Your task to perform on an android device: open a bookmark in the chrome app Image 0: 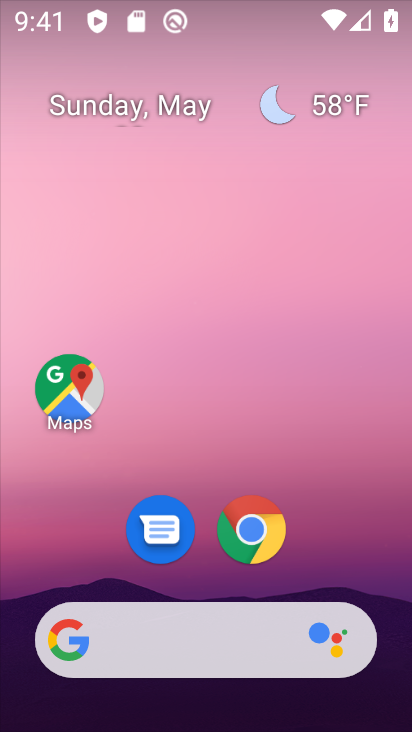
Step 0: click (258, 517)
Your task to perform on an android device: open a bookmark in the chrome app Image 1: 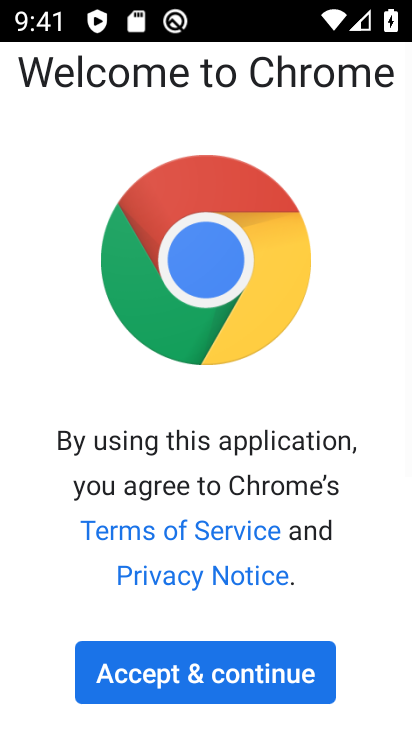
Step 1: click (250, 677)
Your task to perform on an android device: open a bookmark in the chrome app Image 2: 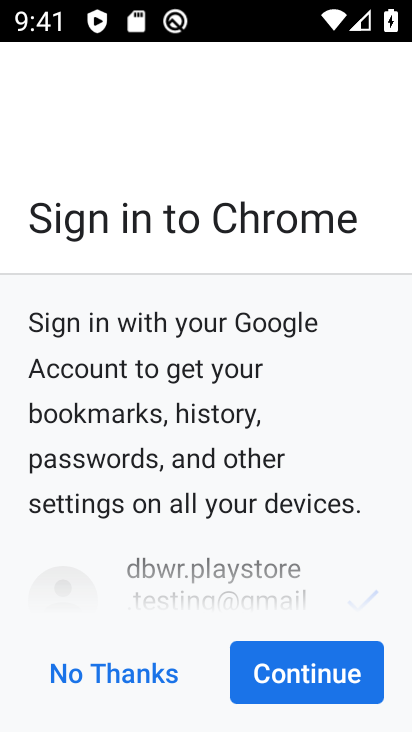
Step 2: click (270, 668)
Your task to perform on an android device: open a bookmark in the chrome app Image 3: 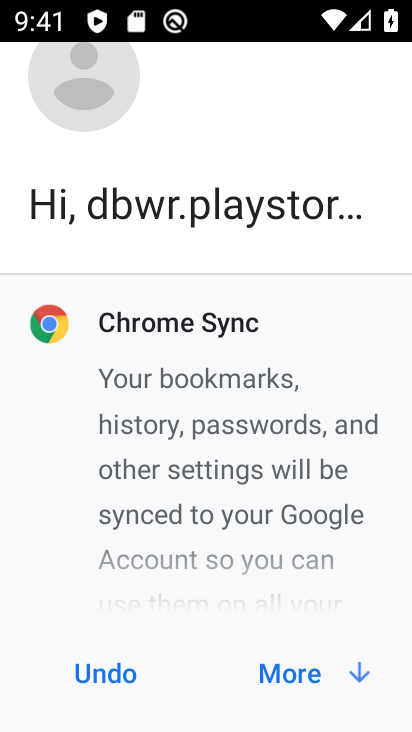
Step 3: click (305, 677)
Your task to perform on an android device: open a bookmark in the chrome app Image 4: 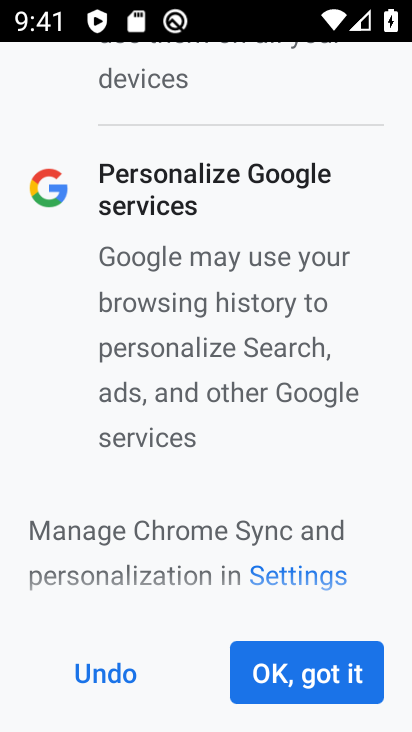
Step 4: click (305, 677)
Your task to perform on an android device: open a bookmark in the chrome app Image 5: 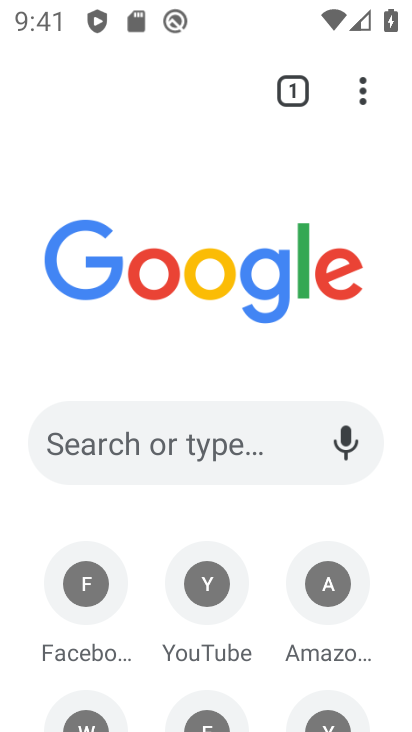
Step 5: click (362, 89)
Your task to perform on an android device: open a bookmark in the chrome app Image 6: 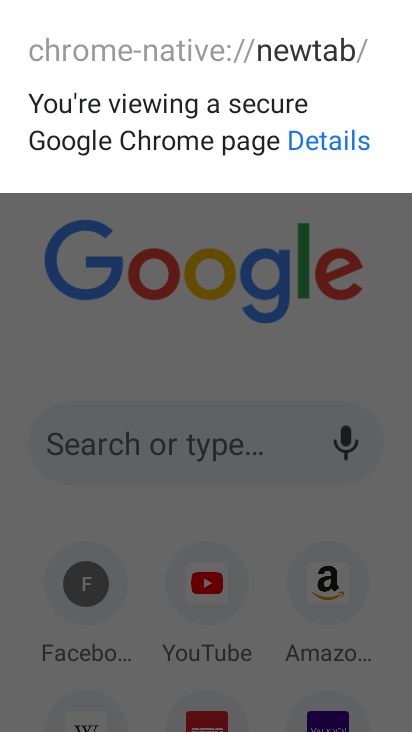
Step 6: click (336, 378)
Your task to perform on an android device: open a bookmark in the chrome app Image 7: 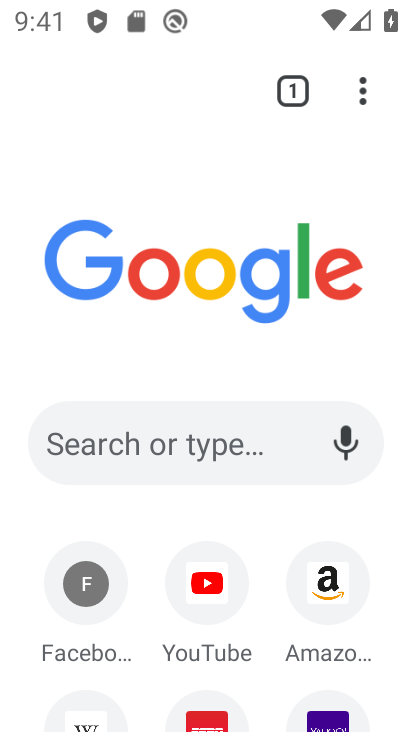
Step 7: click (371, 106)
Your task to perform on an android device: open a bookmark in the chrome app Image 8: 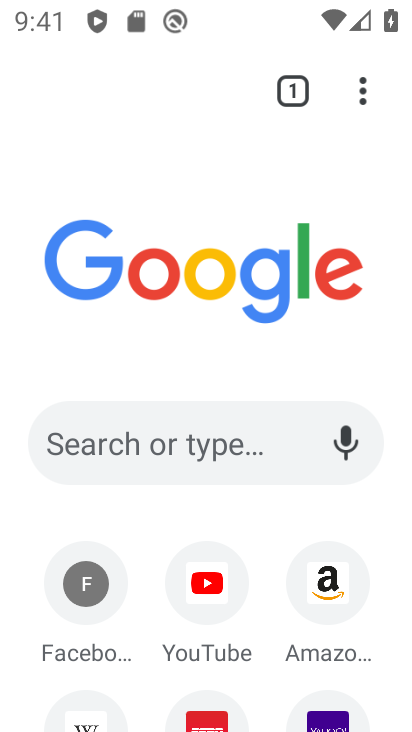
Step 8: click (362, 99)
Your task to perform on an android device: open a bookmark in the chrome app Image 9: 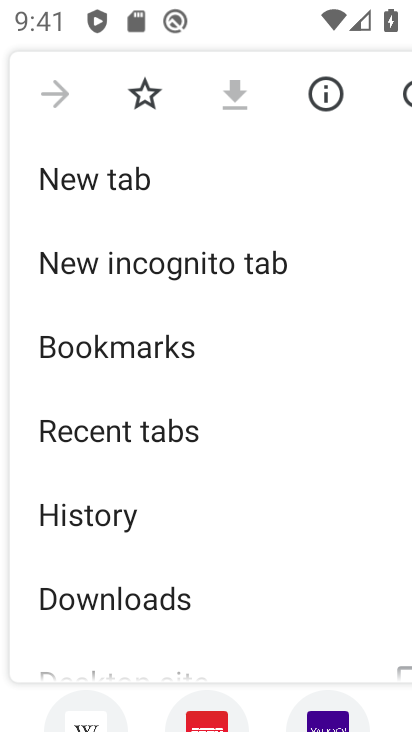
Step 9: click (103, 352)
Your task to perform on an android device: open a bookmark in the chrome app Image 10: 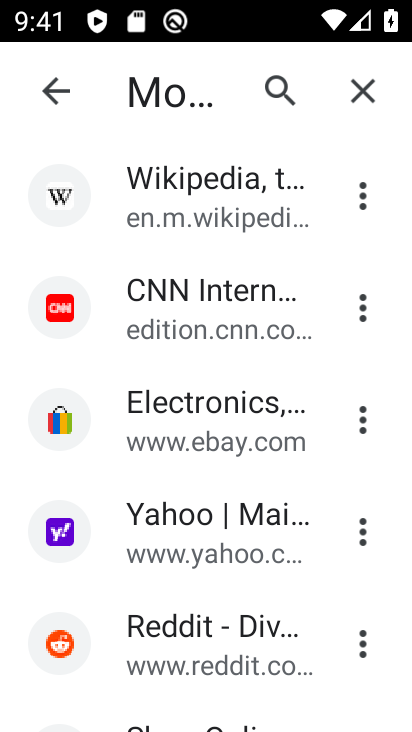
Step 10: click (195, 433)
Your task to perform on an android device: open a bookmark in the chrome app Image 11: 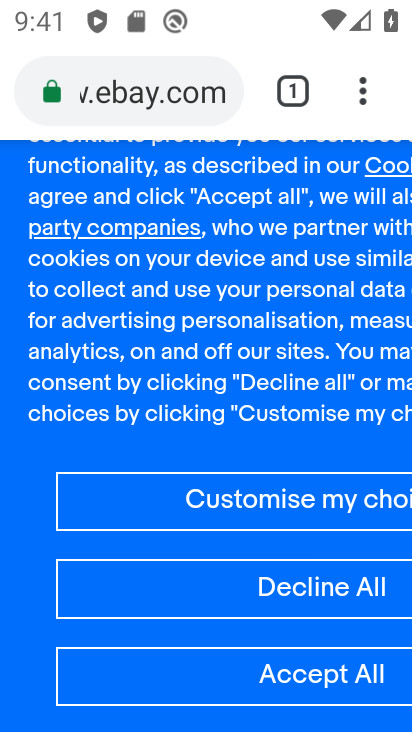
Step 11: task complete